Your task to perform on an android device: Search for sushi restaurants on Maps Image 0: 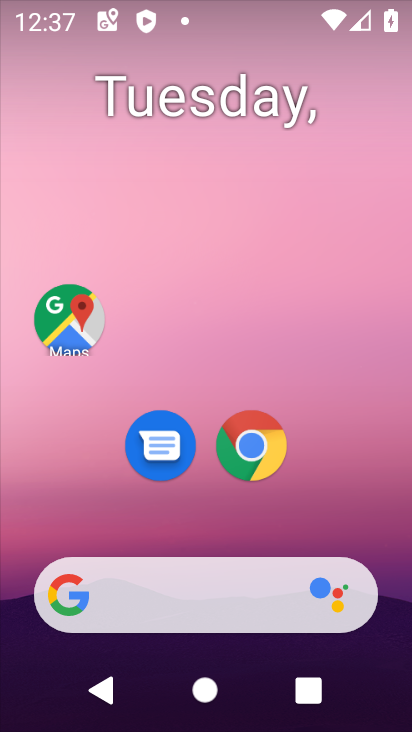
Step 0: drag from (335, 517) to (263, 230)
Your task to perform on an android device: Search for sushi restaurants on Maps Image 1: 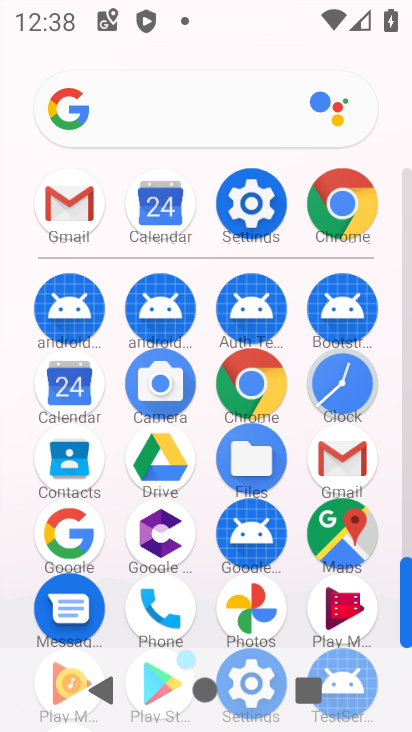
Step 1: click (347, 550)
Your task to perform on an android device: Search for sushi restaurants on Maps Image 2: 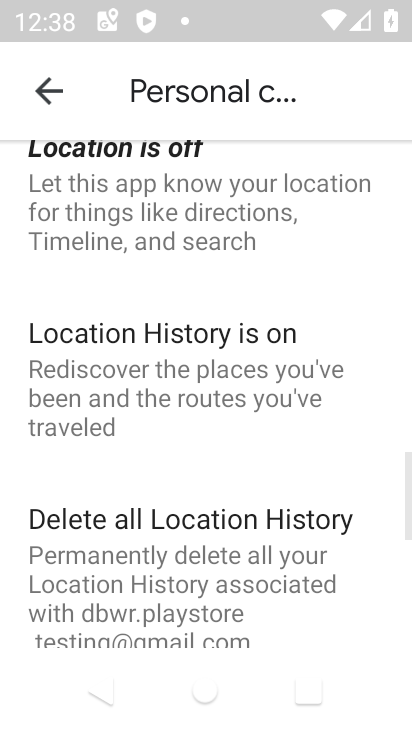
Step 2: click (48, 109)
Your task to perform on an android device: Search for sushi restaurants on Maps Image 3: 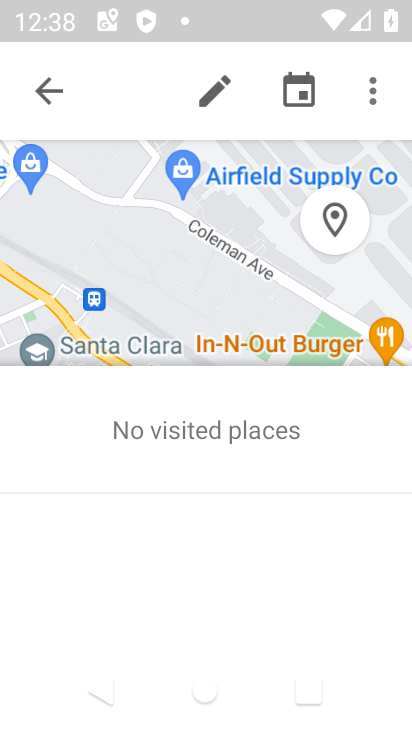
Step 3: click (77, 91)
Your task to perform on an android device: Search for sushi restaurants on Maps Image 4: 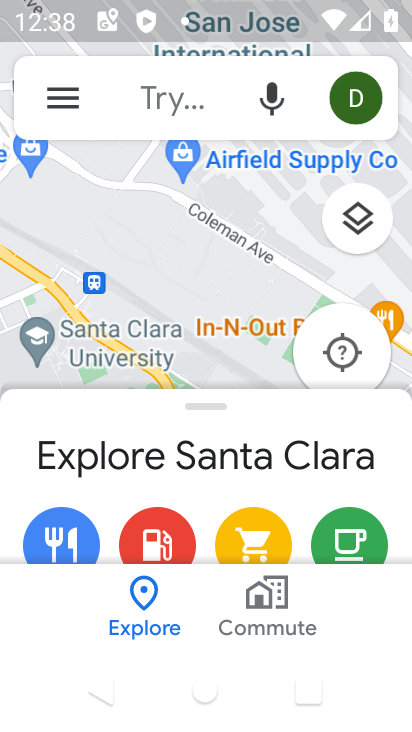
Step 4: click (153, 129)
Your task to perform on an android device: Search for sushi restaurants on Maps Image 5: 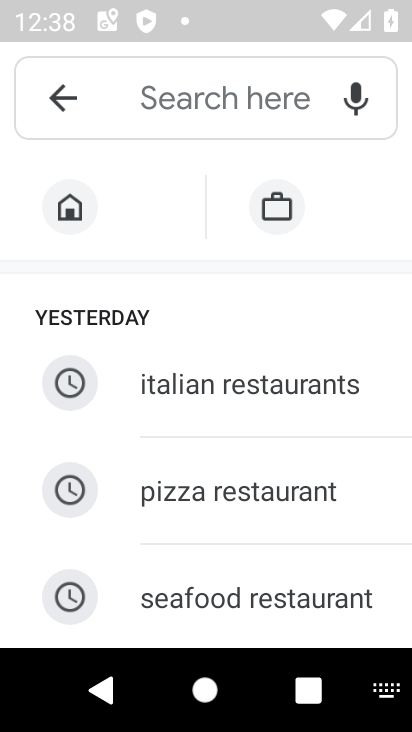
Step 5: drag from (248, 598) to (317, 334)
Your task to perform on an android device: Search for sushi restaurants on Maps Image 6: 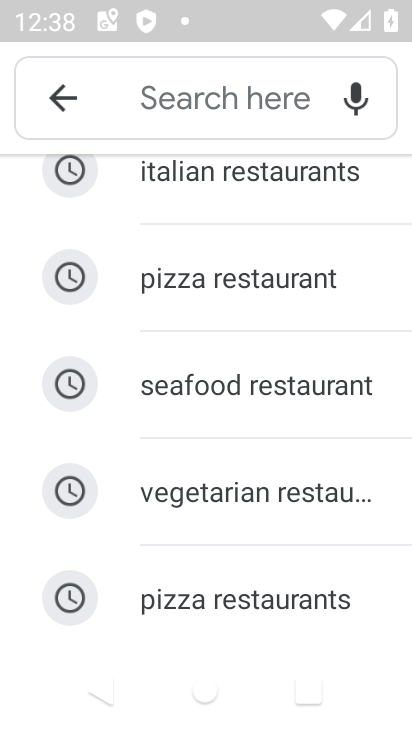
Step 6: drag from (267, 578) to (299, 333)
Your task to perform on an android device: Search for sushi restaurants on Maps Image 7: 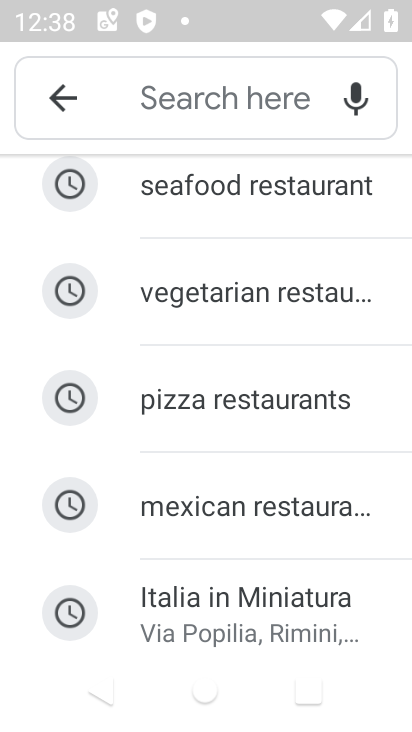
Step 7: drag from (234, 571) to (243, 256)
Your task to perform on an android device: Search for sushi restaurants on Maps Image 8: 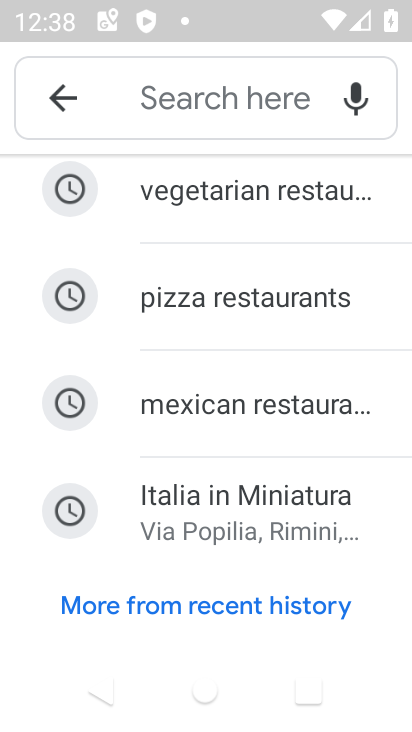
Step 8: drag from (211, 594) to (224, 365)
Your task to perform on an android device: Search for sushi restaurants on Maps Image 9: 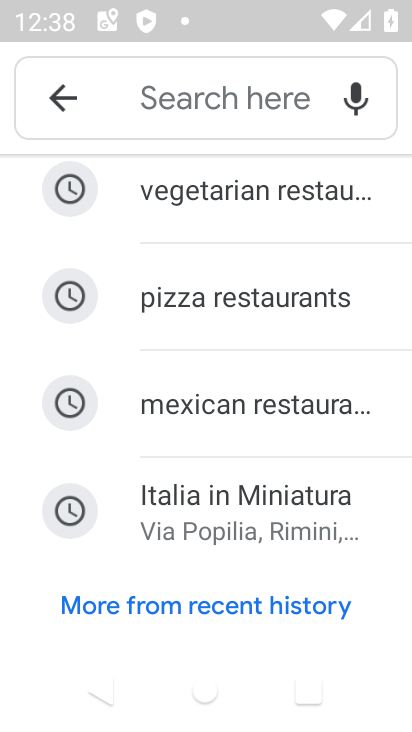
Step 9: click (192, 610)
Your task to perform on an android device: Search for sushi restaurants on Maps Image 10: 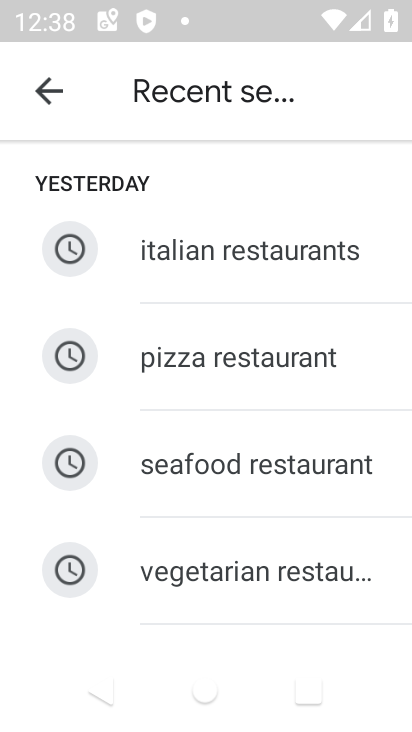
Step 10: drag from (194, 600) to (211, 303)
Your task to perform on an android device: Search for sushi restaurants on Maps Image 11: 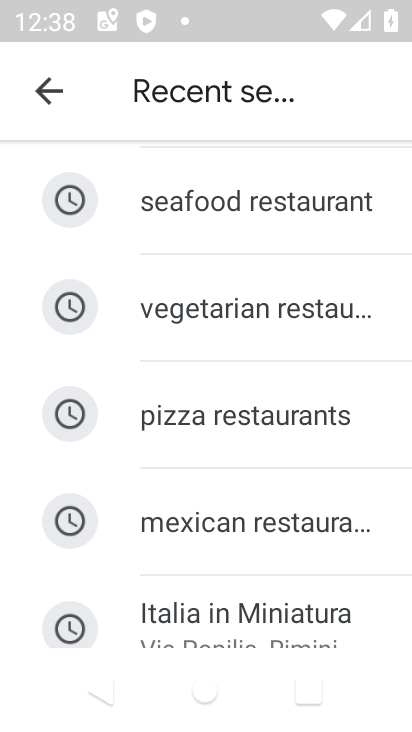
Step 11: drag from (245, 565) to (271, 243)
Your task to perform on an android device: Search for sushi restaurants on Maps Image 12: 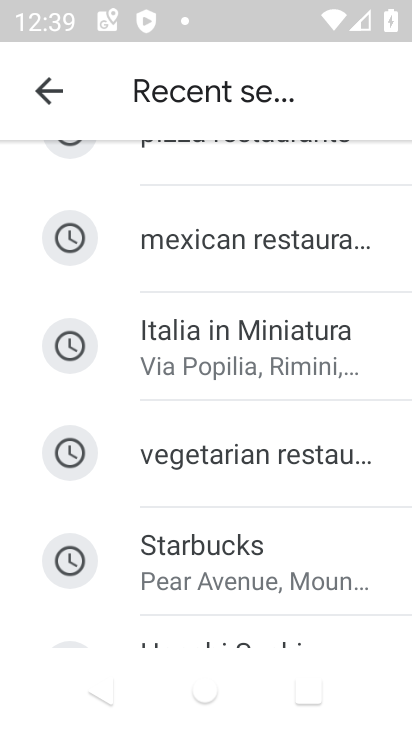
Step 12: drag from (207, 579) to (237, 260)
Your task to perform on an android device: Search for sushi restaurants on Maps Image 13: 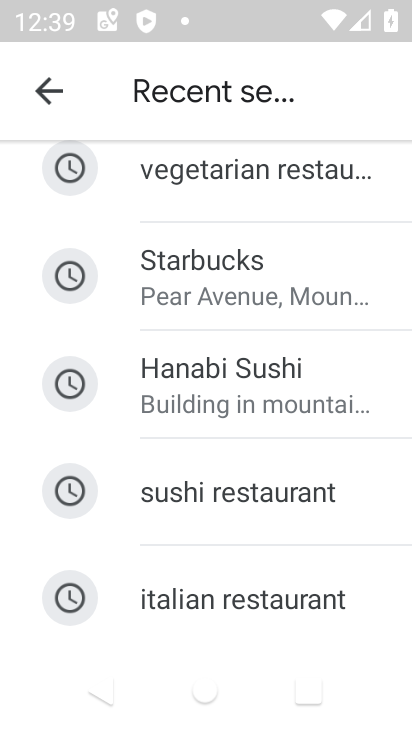
Step 13: click (183, 494)
Your task to perform on an android device: Search for sushi restaurants on Maps Image 14: 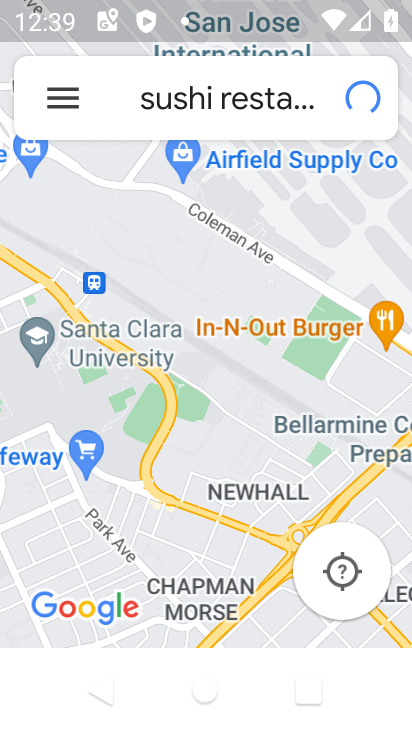
Step 14: task complete